Your task to perform on an android device: Go to Yahoo.com Image 0: 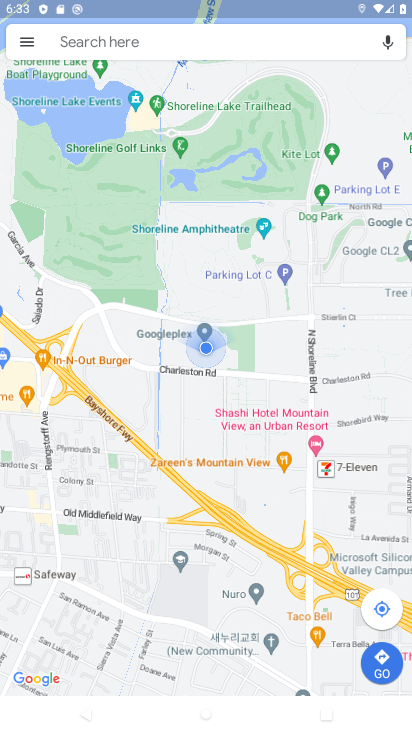
Step 0: press home button
Your task to perform on an android device: Go to Yahoo.com Image 1: 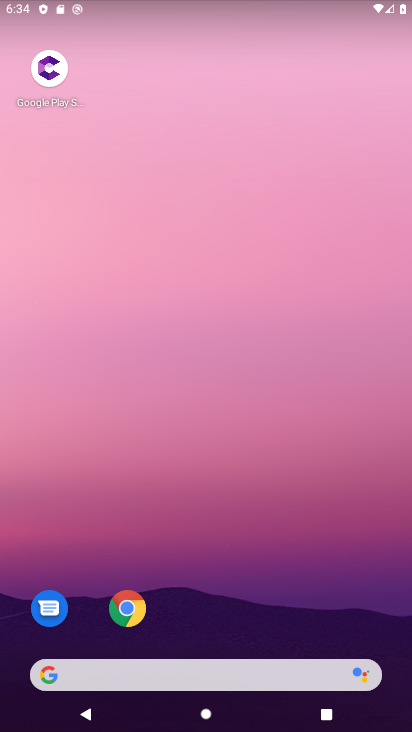
Step 1: drag from (272, 582) to (325, 78)
Your task to perform on an android device: Go to Yahoo.com Image 2: 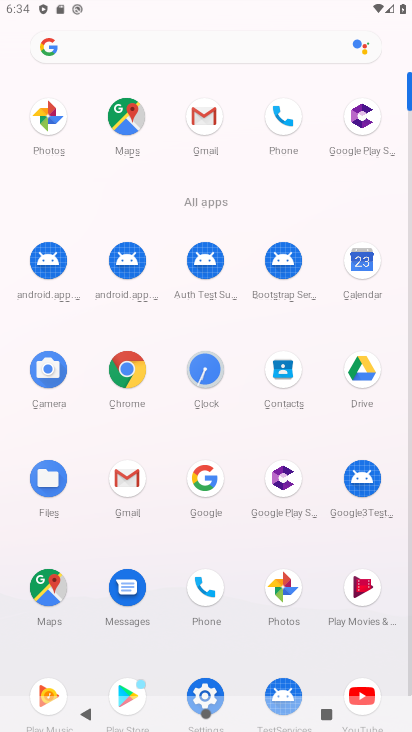
Step 2: click (197, 578)
Your task to perform on an android device: Go to Yahoo.com Image 3: 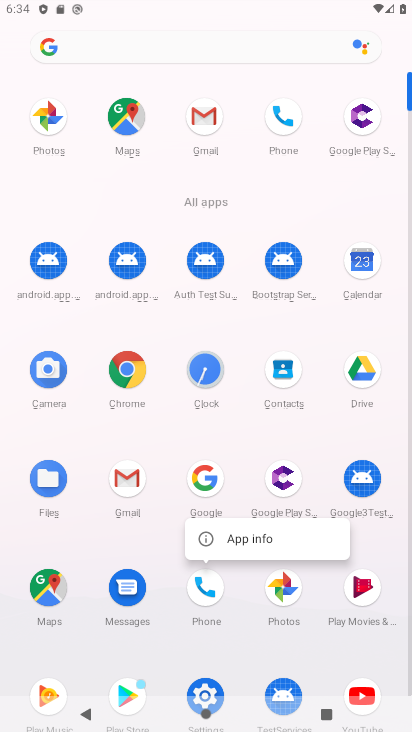
Step 3: click (252, 534)
Your task to perform on an android device: Go to Yahoo.com Image 4: 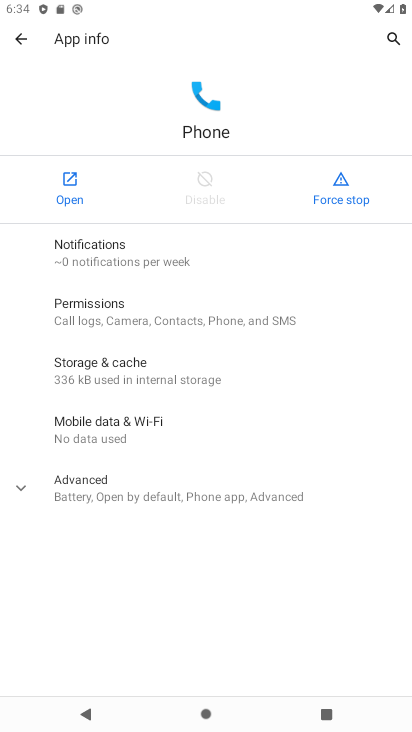
Step 4: click (83, 309)
Your task to perform on an android device: Go to Yahoo.com Image 5: 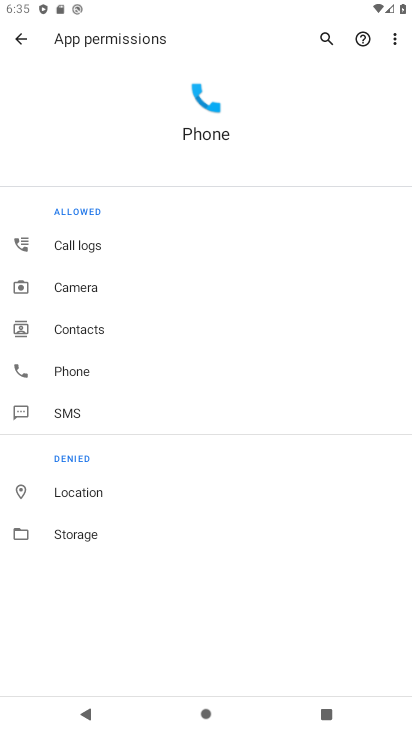
Step 5: click (71, 488)
Your task to perform on an android device: Go to Yahoo.com Image 6: 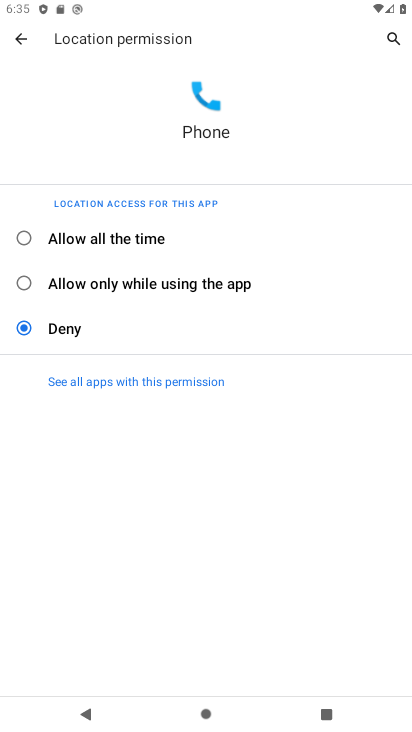
Step 6: task complete